Your task to perform on an android device: open app "Google Chrome" (install if not already installed) Image 0: 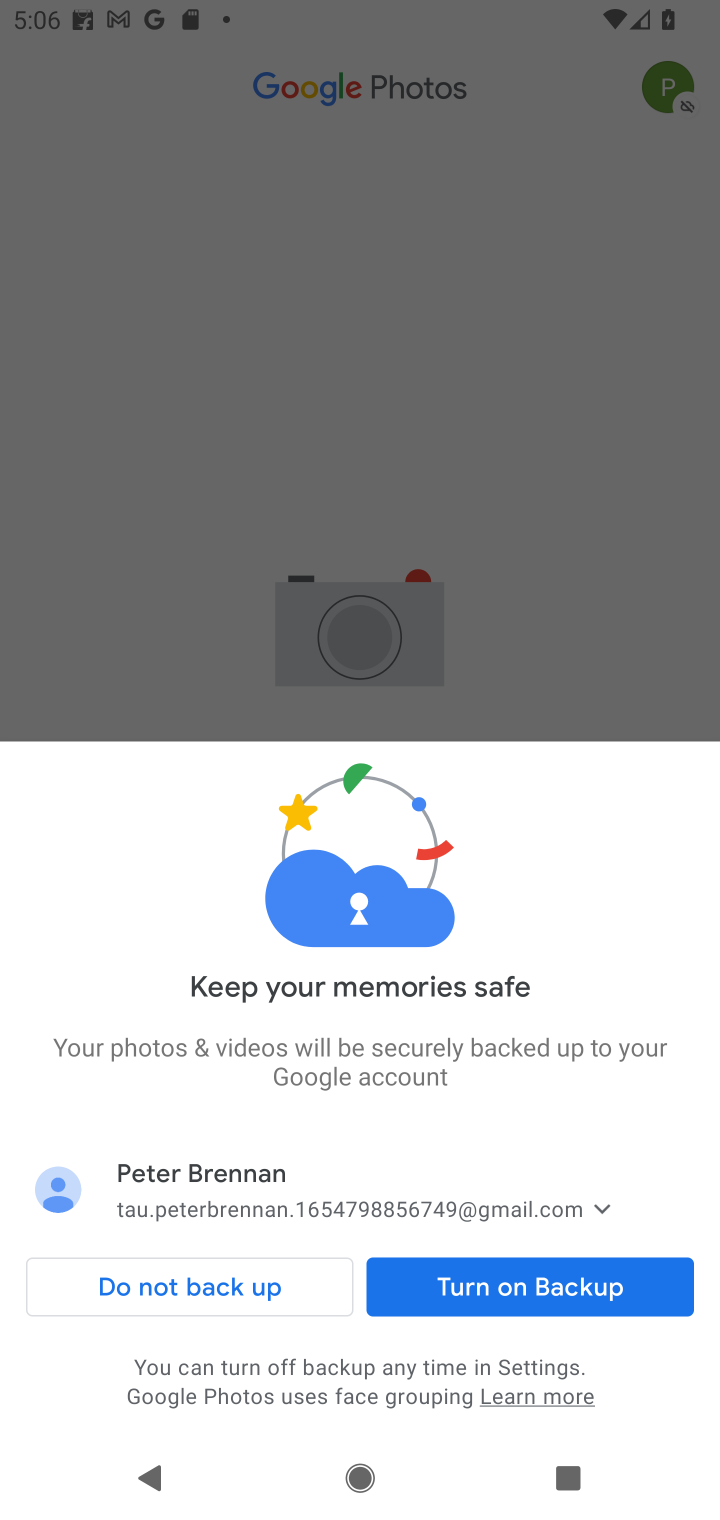
Step 0: press home button
Your task to perform on an android device: open app "Google Chrome" (install if not already installed) Image 1: 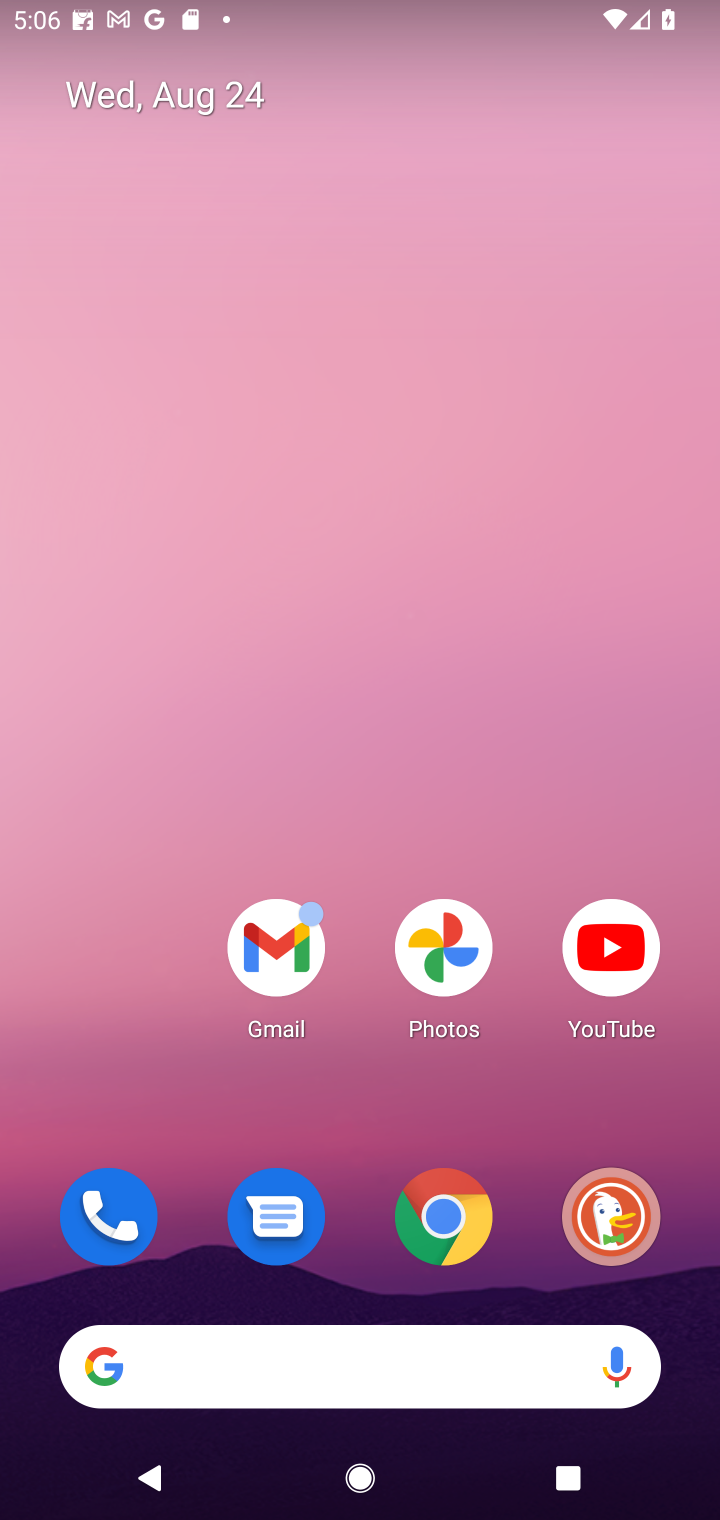
Step 1: drag from (333, 1071) to (342, 204)
Your task to perform on an android device: open app "Google Chrome" (install if not already installed) Image 2: 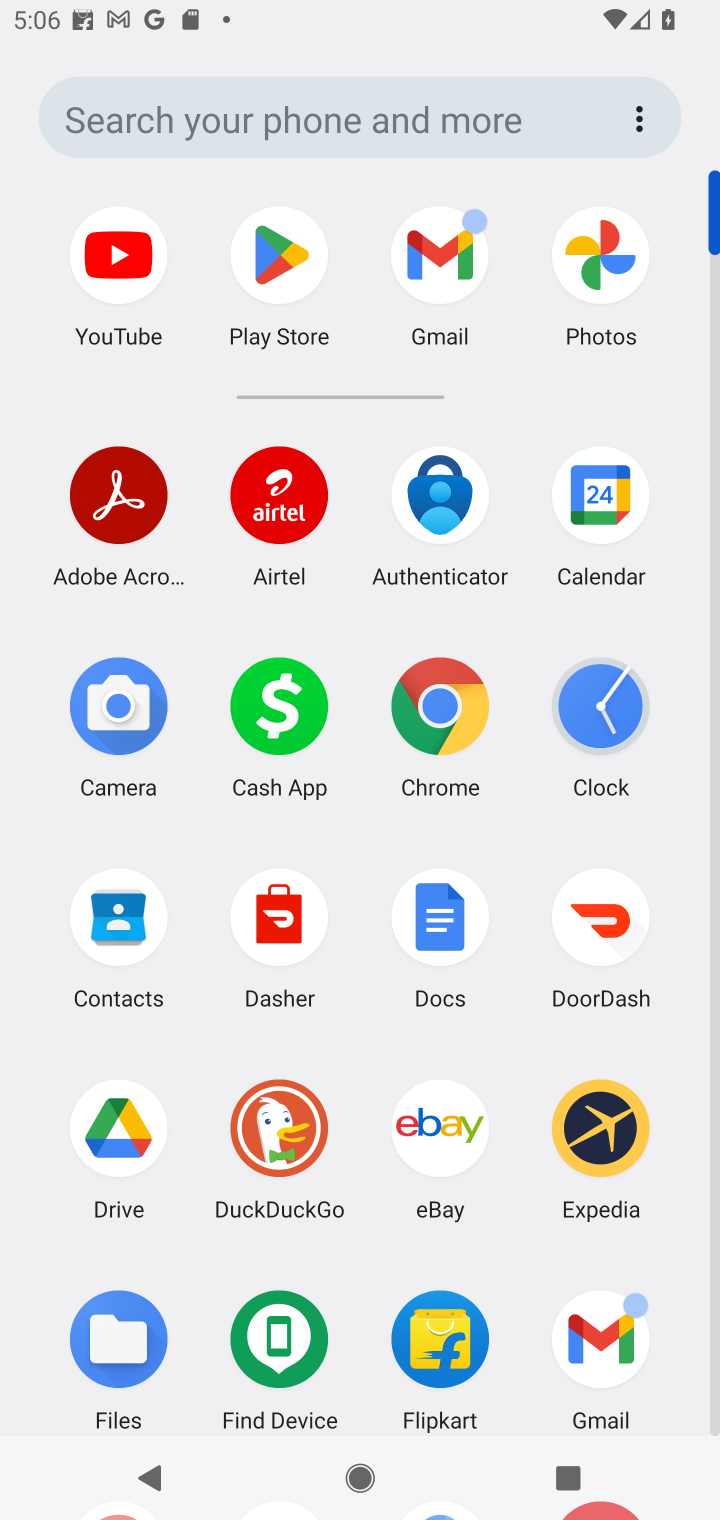
Step 2: click (271, 274)
Your task to perform on an android device: open app "Google Chrome" (install if not already installed) Image 3: 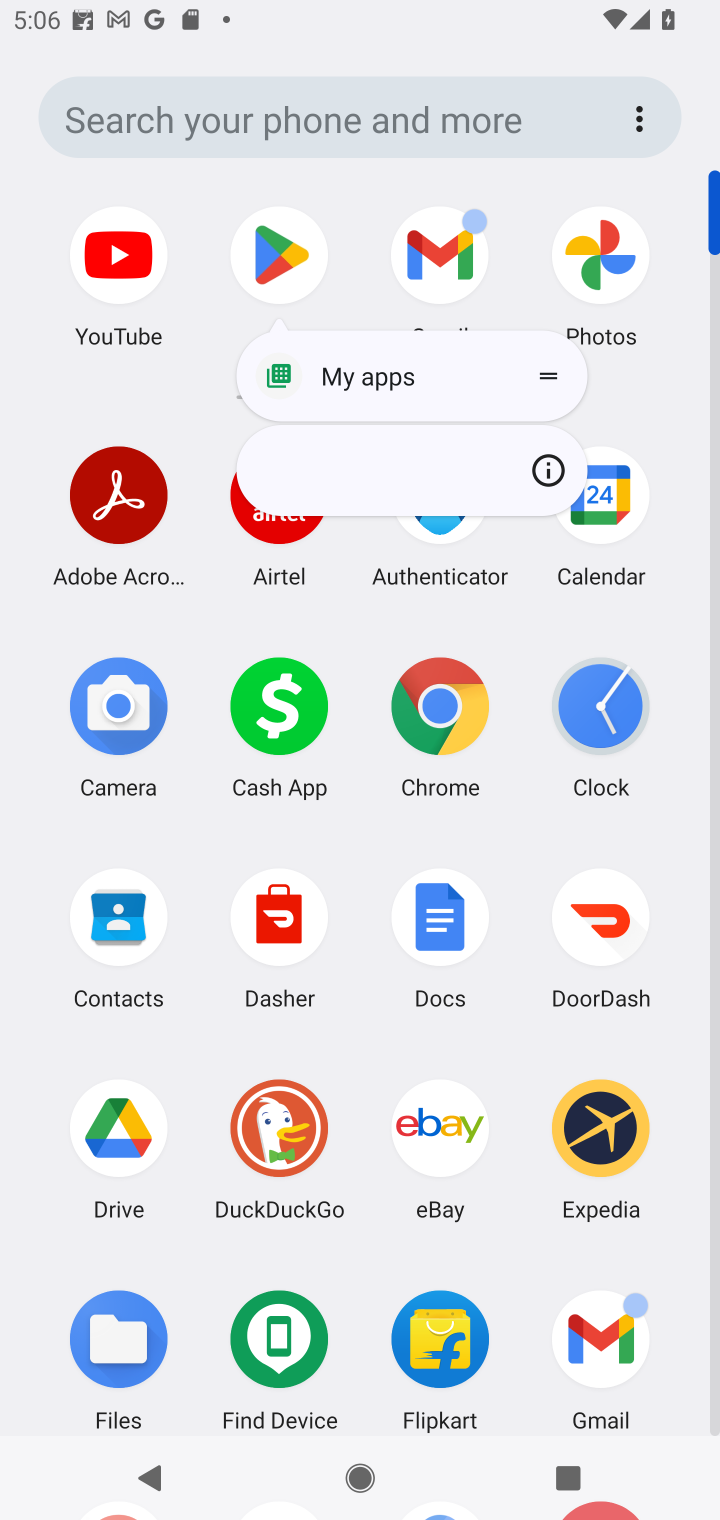
Step 3: click (276, 238)
Your task to perform on an android device: open app "Google Chrome" (install if not already installed) Image 4: 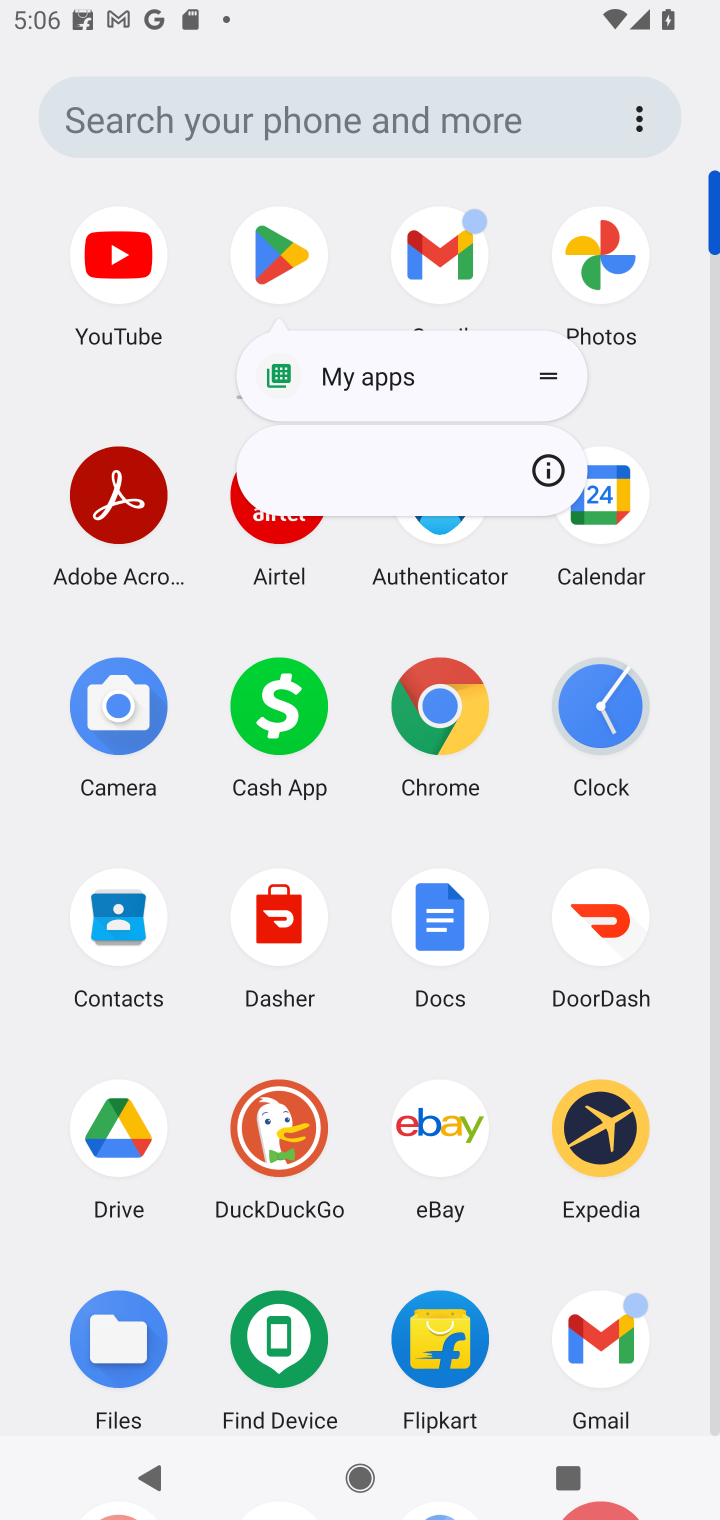
Step 4: click (291, 261)
Your task to perform on an android device: open app "Google Chrome" (install if not already installed) Image 5: 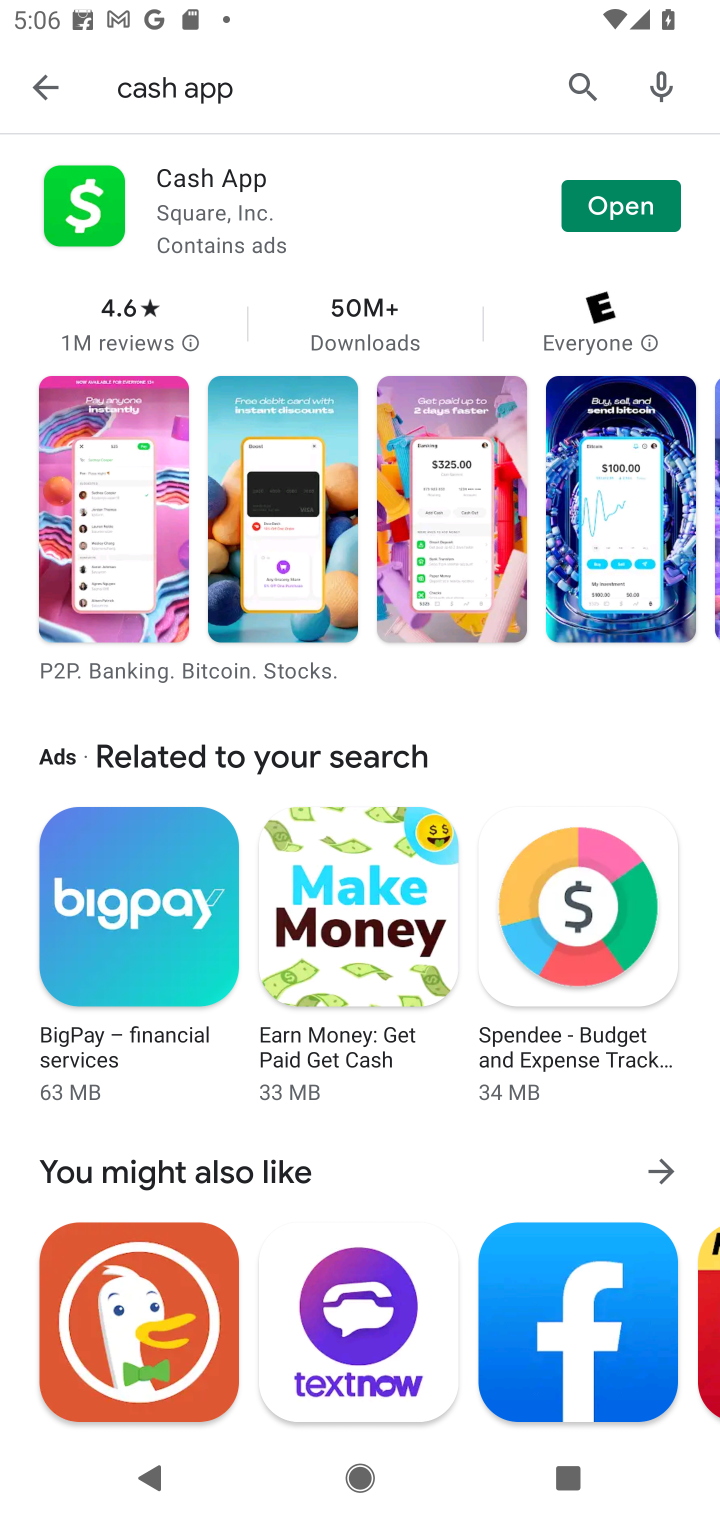
Step 5: drag from (253, 775) to (293, 983)
Your task to perform on an android device: open app "Google Chrome" (install if not already installed) Image 6: 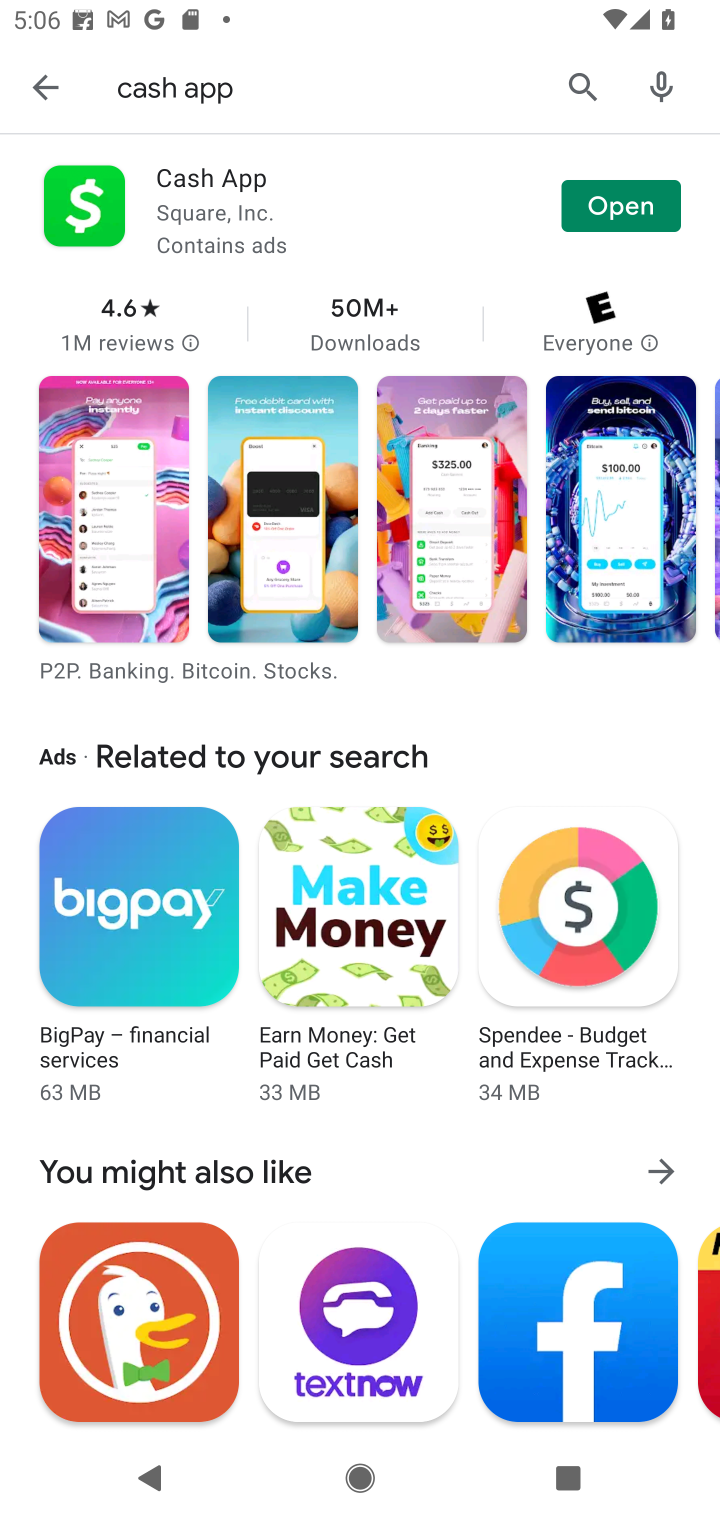
Step 6: click (577, 89)
Your task to perform on an android device: open app "Google Chrome" (install if not already installed) Image 7: 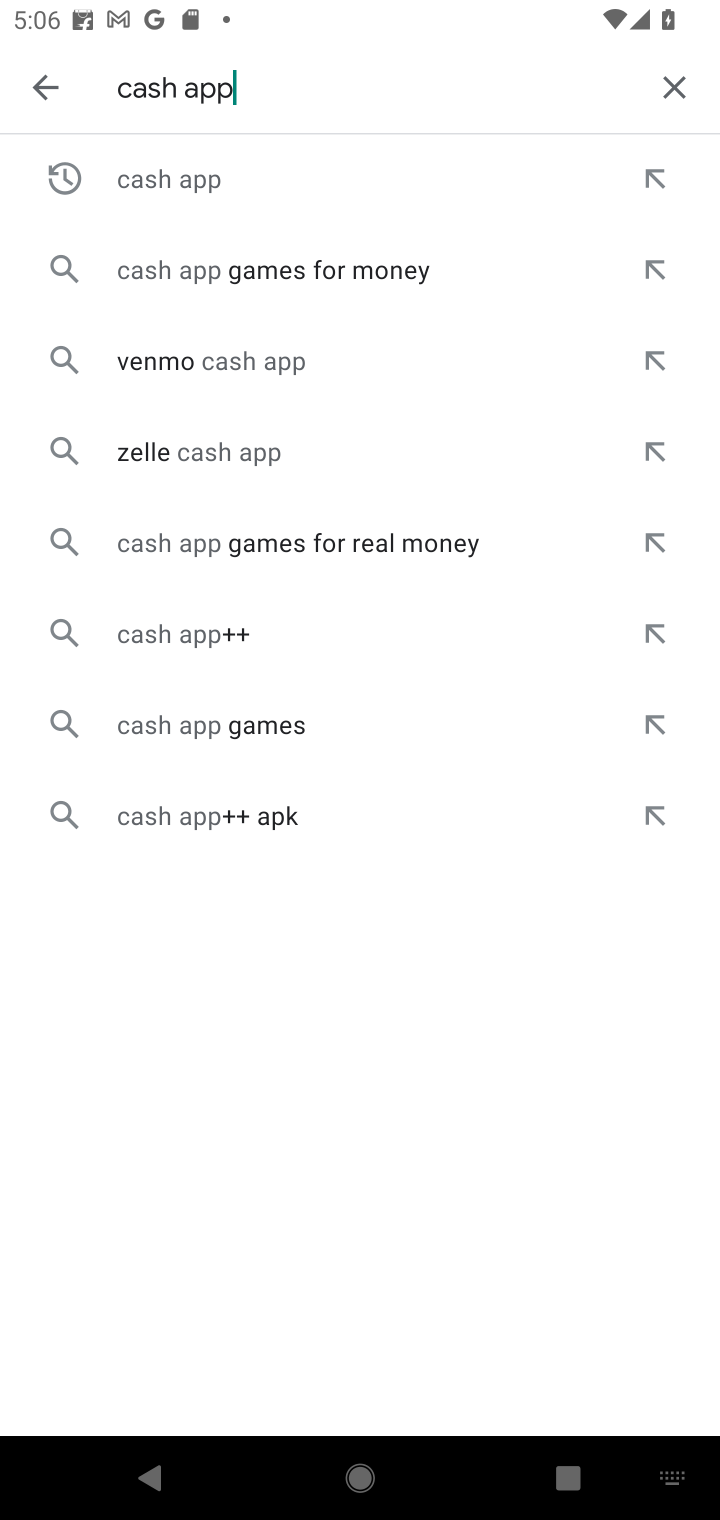
Step 7: click (674, 87)
Your task to perform on an android device: open app "Google Chrome" (install if not already installed) Image 8: 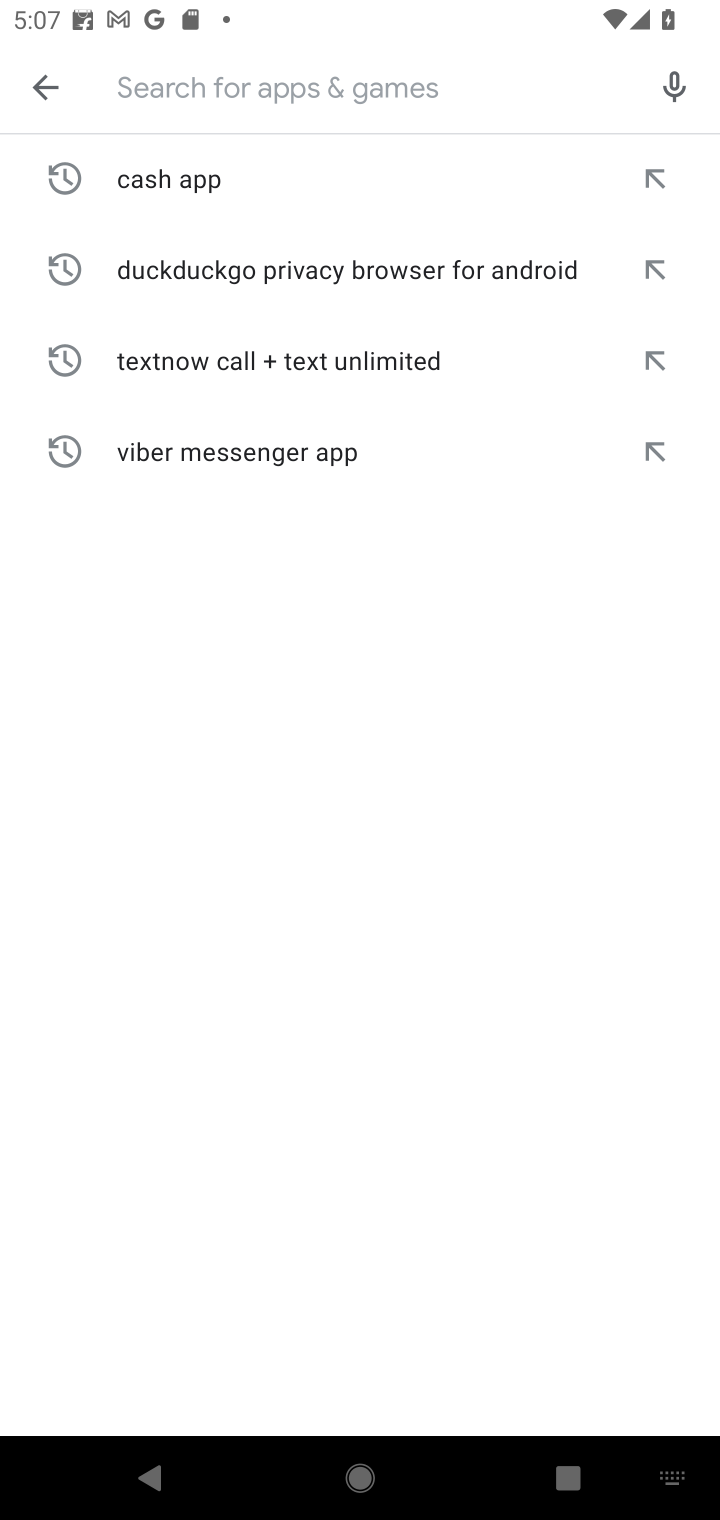
Step 8: type "Google Chrome"
Your task to perform on an android device: open app "Google Chrome" (install if not already installed) Image 9: 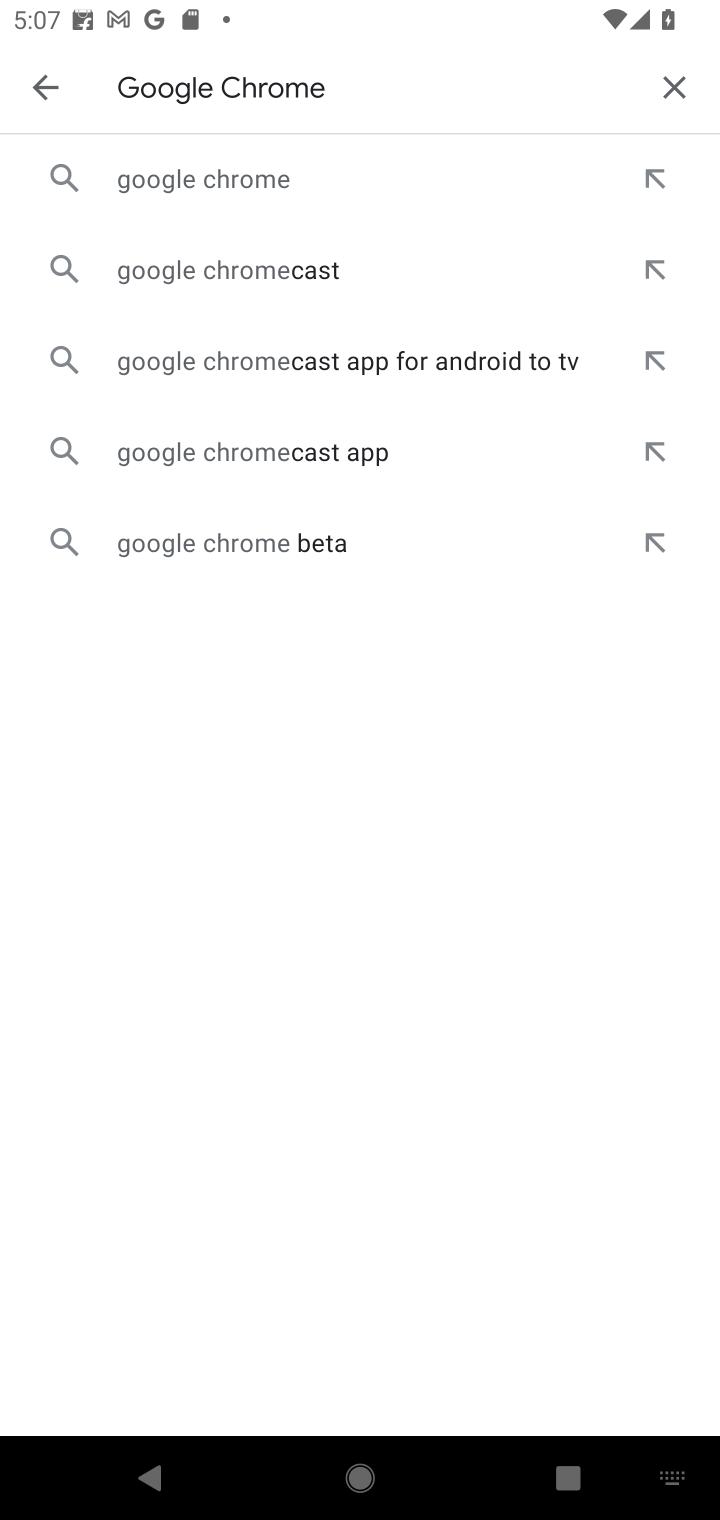
Step 9: click (254, 175)
Your task to perform on an android device: open app "Google Chrome" (install if not already installed) Image 10: 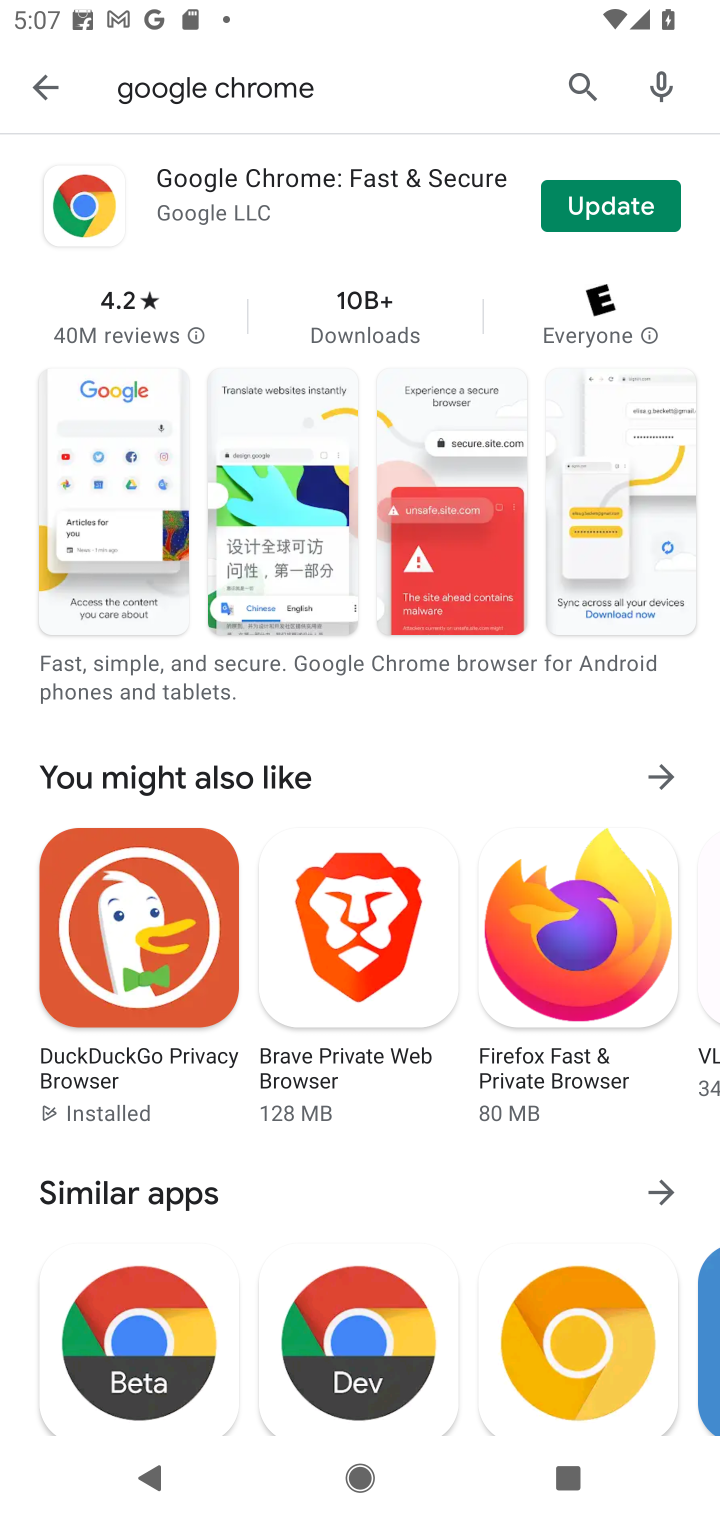
Step 10: click (415, 191)
Your task to perform on an android device: open app "Google Chrome" (install if not already installed) Image 11: 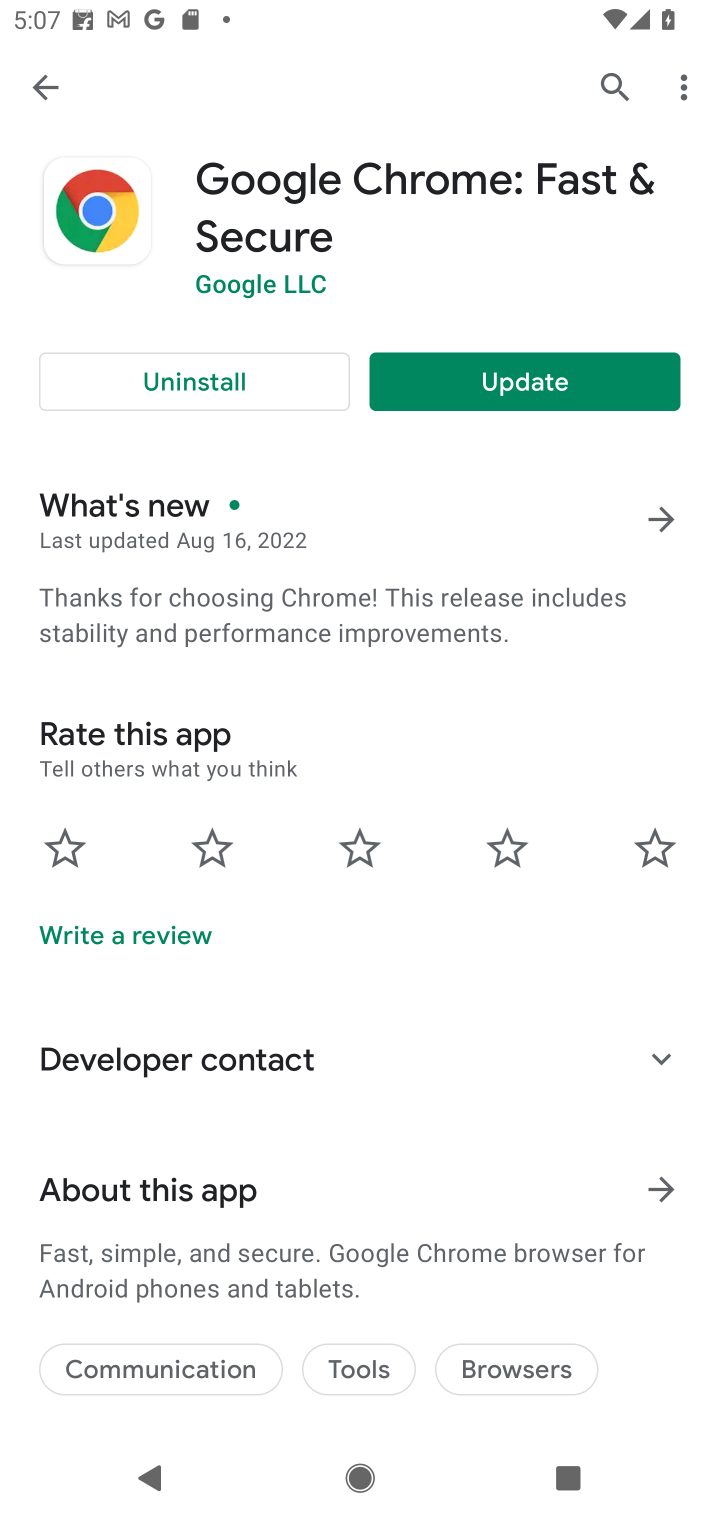
Step 11: task complete